Your task to perform on an android device: Open calendar and show me the fourth week of next month Image 0: 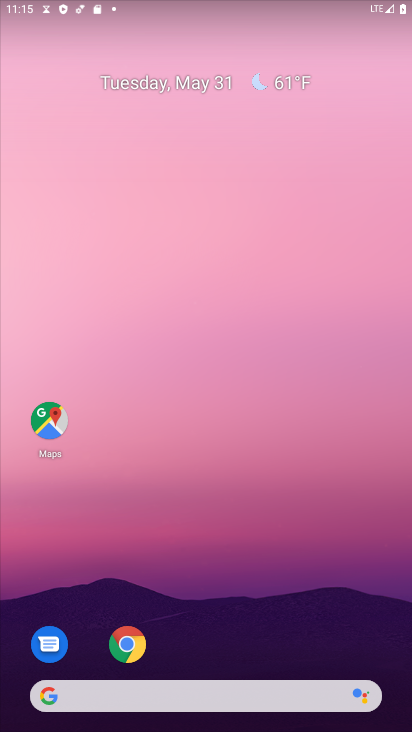
Step 0: drag from (230, 623) to (265, 125)
Your task to perform on an android device: Open calendar and show me the fourth week of next month Image 1: 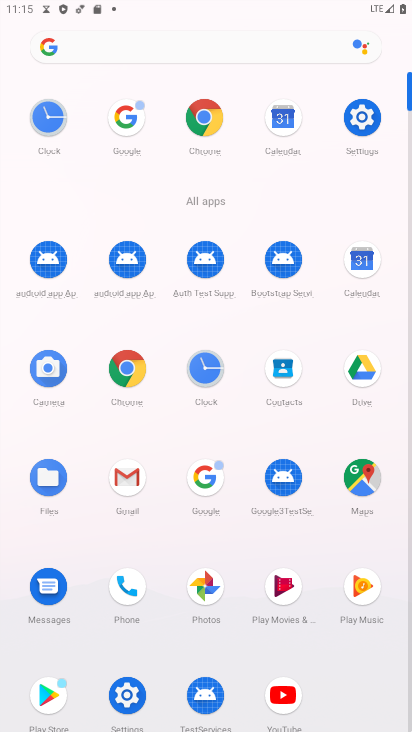
Step 1: click (365, 263)
Your task to perform on an android device: Open calendar and show me the fourth week of next month Image 2: 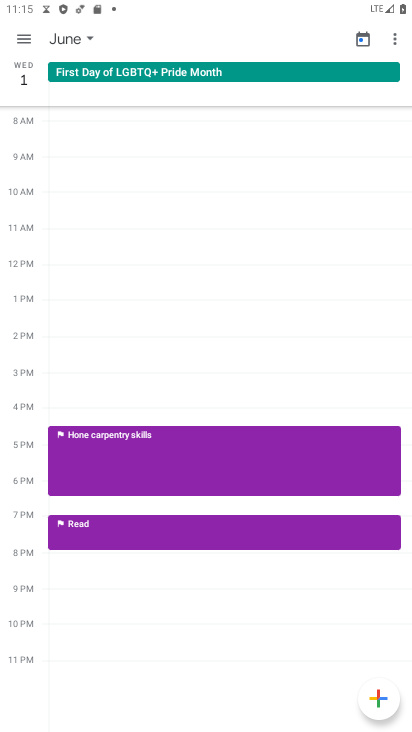
Step 2: click (86, 37)
Your task to perform on an android device: Open calendar and show me the fourth week of next month Image 3: 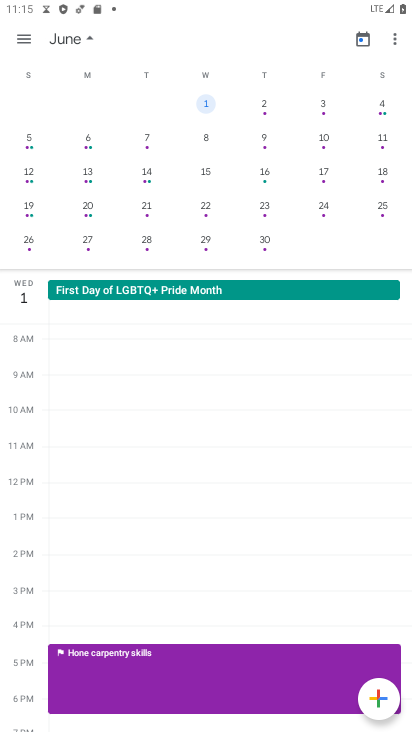
Step 3: drag from (373, 173) to (5, 164)
Your task to perform on an android device: Open calendar and show me the fourth week of next month Image 4: 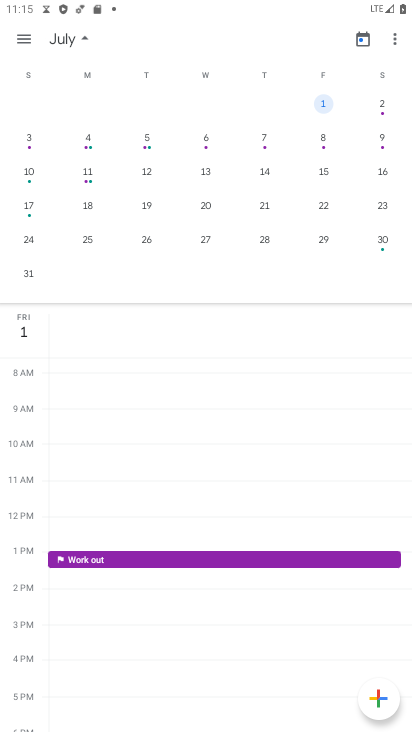
Step 4: click (86, 202)
Your task to perform on an android device: Open calendar and show me the fourth week of next month Image 5: 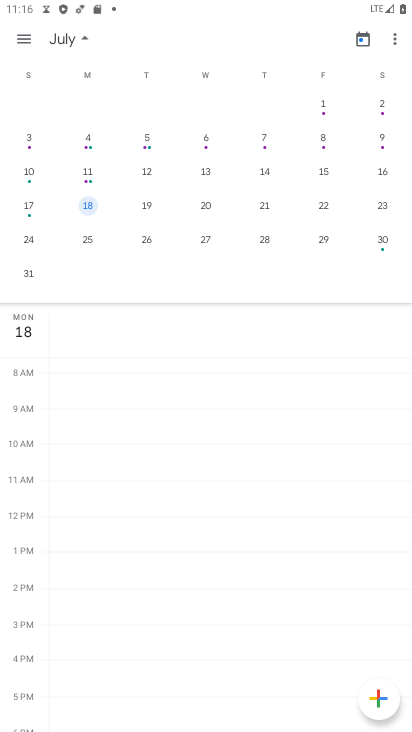
Step 5: click (90, 237)
Your task to perform on an android device: Open calendar and show me the fourth week of next month Image 6: 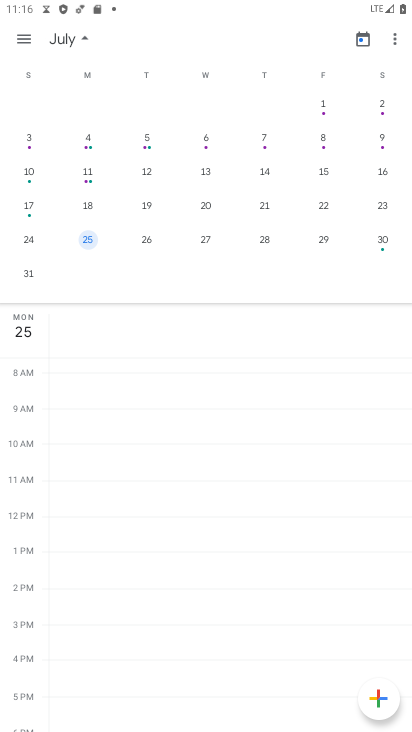
Step 6: task complete